Your task to perform on an android device: toggle show notifications on the lock screen Image 0: 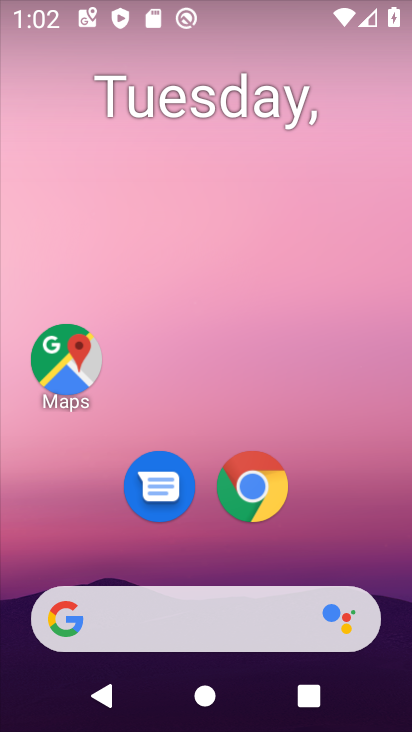
Step 0: drag from (386, 584) to (351, 220)
Your task to perform on an android device: toggle show notifications on the lock screen Image 1: 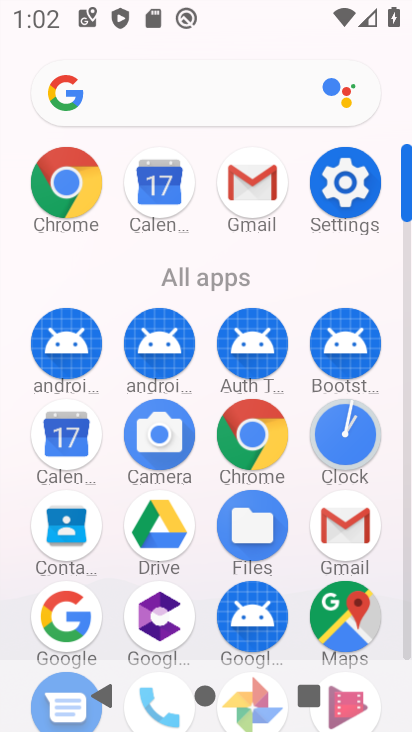
Step 1: click (340, 200)
Your task to perform on an android device: toggle show notifications on the lock screen Image 2: 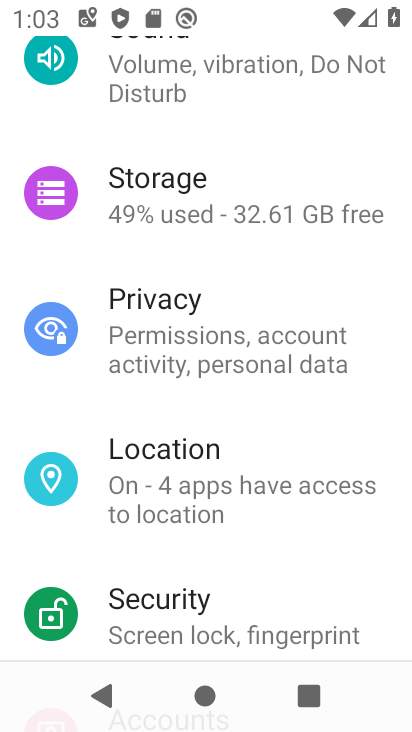
Step 2: drag from (194, 337) to (150, 681)
Your task to perform on an android device: toggle show notifications on the lock screen Image 3: 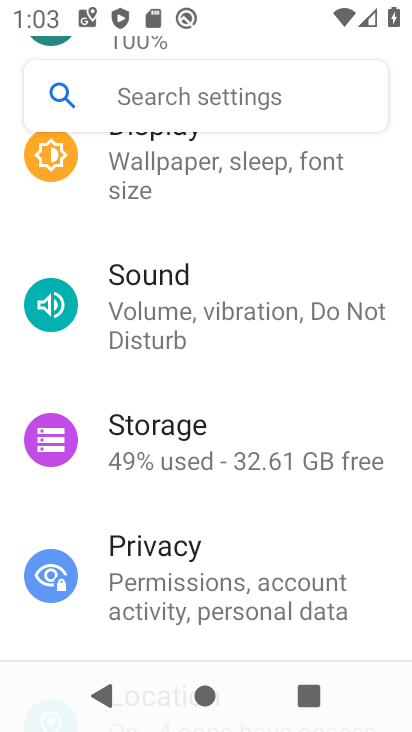
Step 3: drag from (248, 359) to (216, 727)
Your task to perform on an android device: toggle show notifications on the lock screen Image 4: 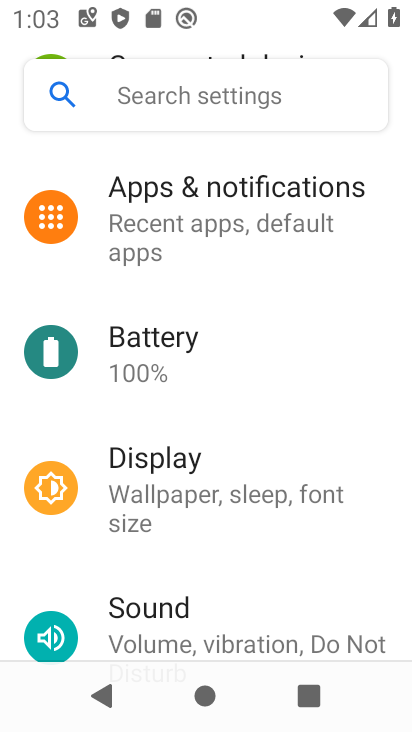
Step 4: click (239, 223)
Your task to perform on an android device: toggle show notifications on the lock screen Image 5: 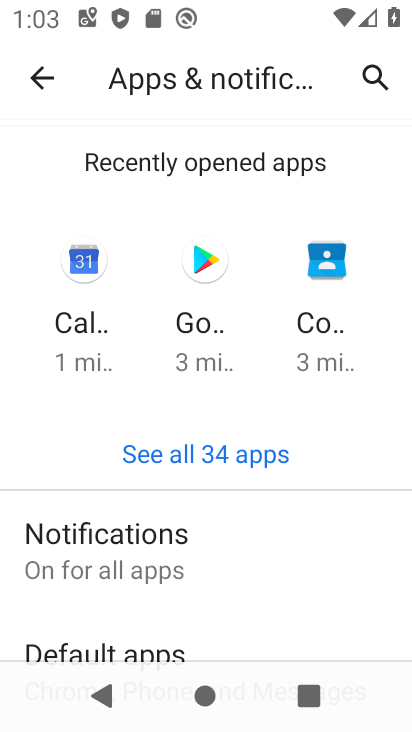
Step 5: click (256, 540)
Your task to perform on an android device: toggle show notifications on the lock screen Image 6: 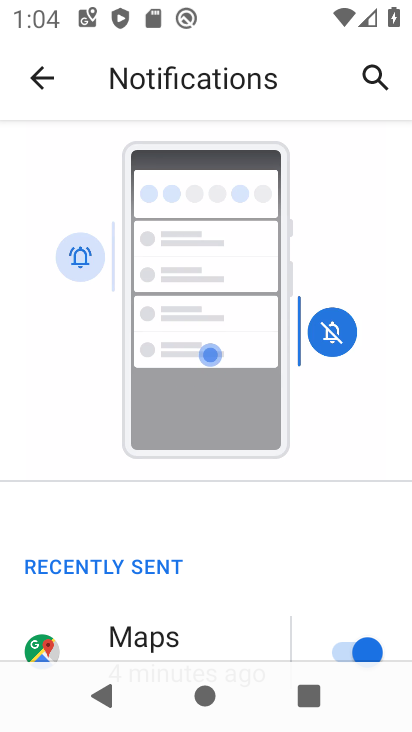
Step 6: drag from (222, 607) to (182, 323)
Your task to perform on an android device: toggle show notifications on the lock screen Image 7: 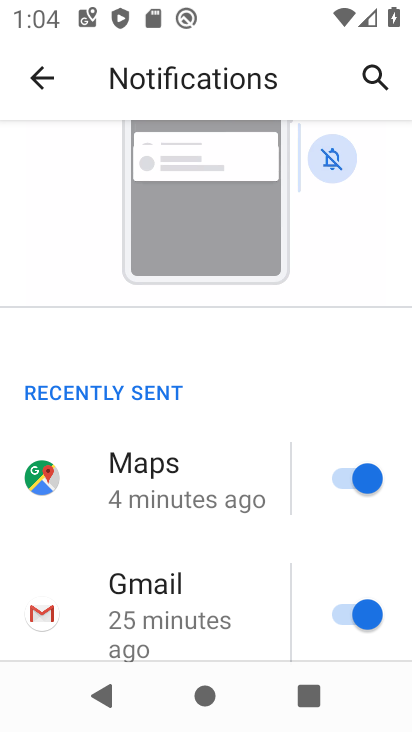
Step 7: drag from (218, 589) to (194, 335)
Your task to perform on an android device: toggle show notifications on the lock screen Image 8: 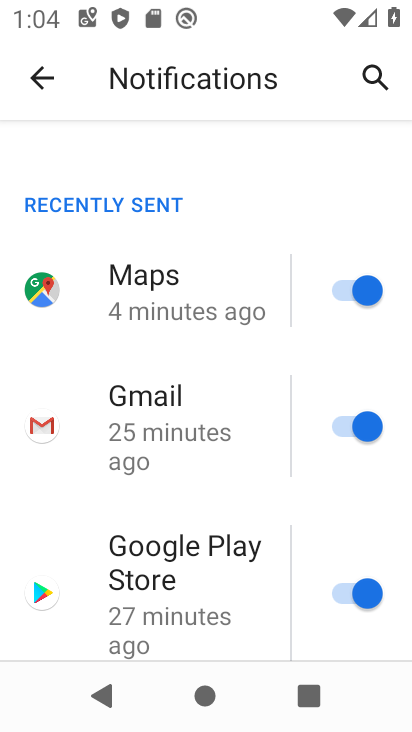
Step 8: drag from (238, 637) to (244, 170)
Your task to perform on an android device: toggle show notifications on the lock screen Image 9: 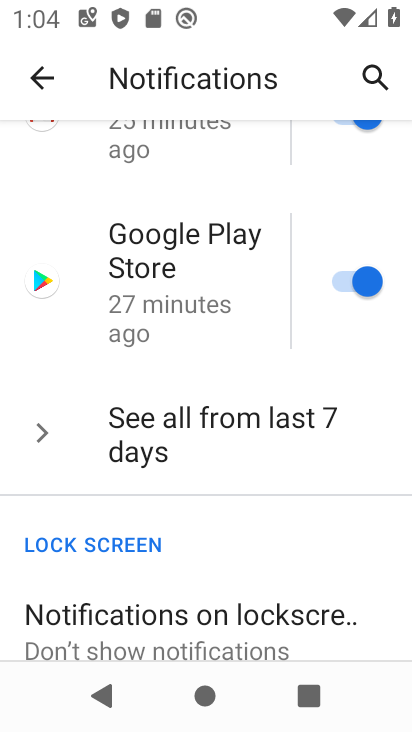
Step 9: click (308, 627)
Your task to perform on an android device: toggle show notifications on the lock screen Image 10: 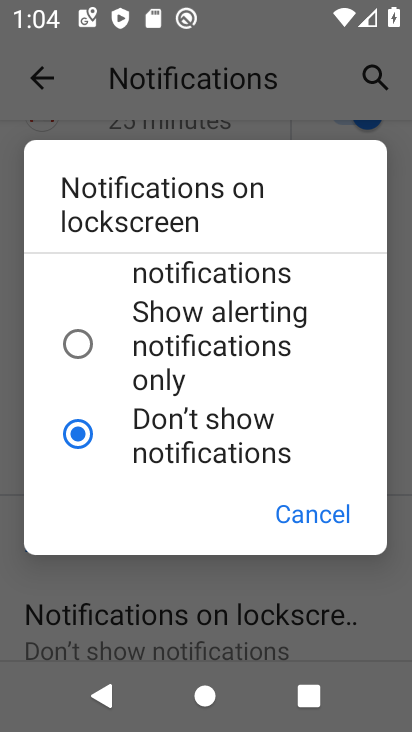
Step 10: click (201, 331)
Your task to perform on an android device: toggle show notifications on the lock screen Image 11: 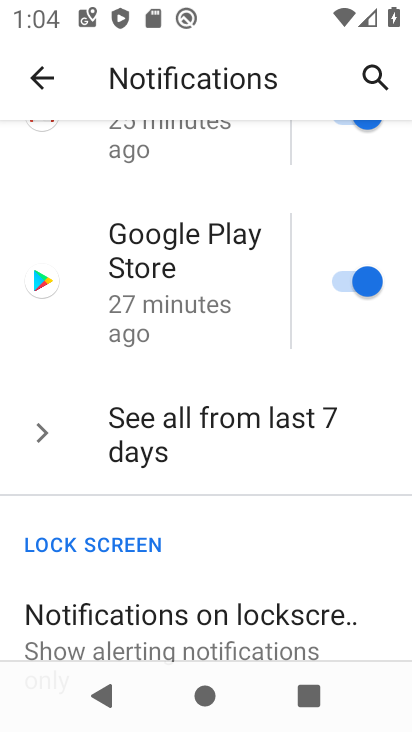
Step 11: task complete